Your task to perform on an android device: turn pop-ups on in chrome Image 0: 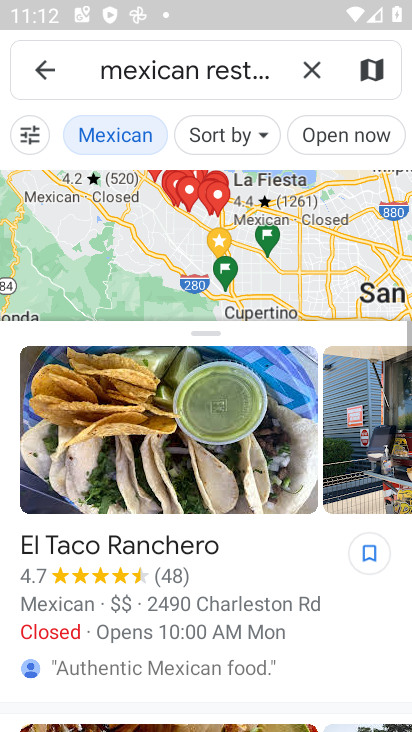
Step 0: press home button
Your task to perform on an android device: turn pop-ups on in chrome Image 1: 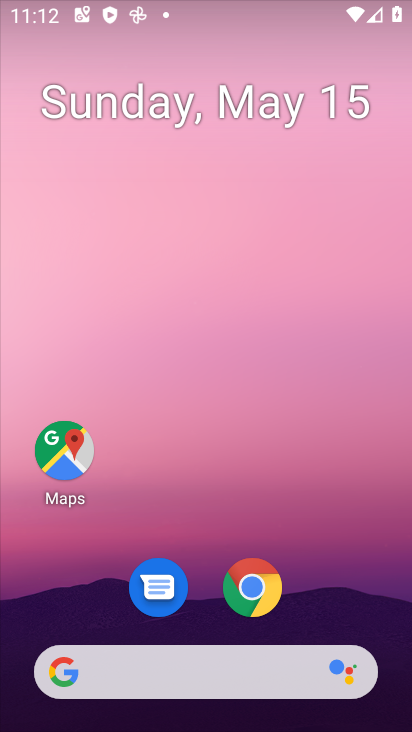
Step 1: drag from (383, 630) to (231, 111)
Your task to perform on an android device: turn pop-ups on in chrome Image 2: 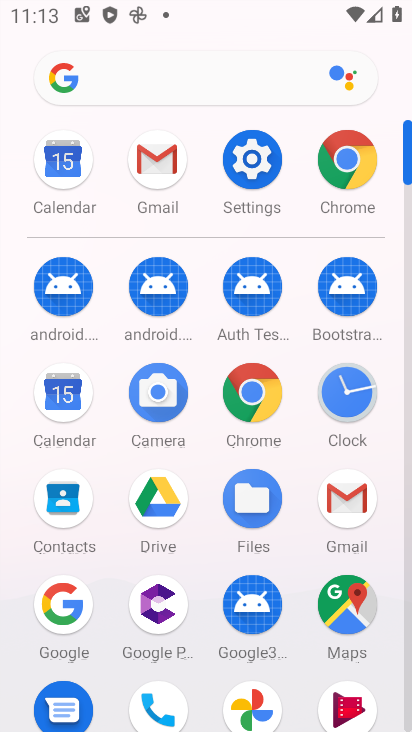
Step 2: click (259, 413)
Your task to perform on an android device: turn pop-ups on in chrome Image 3: 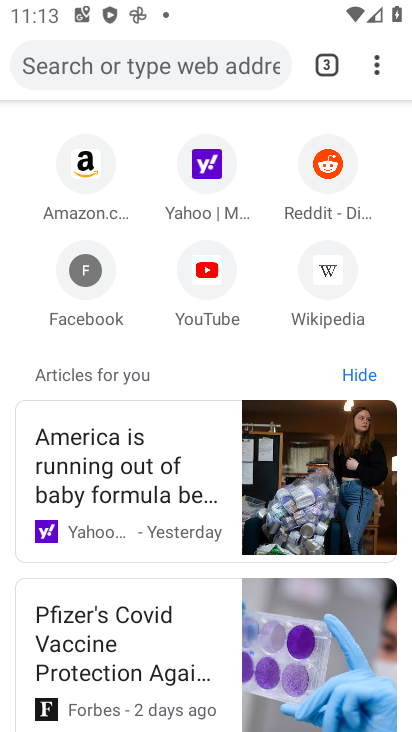
Step 3: click (373, 65)
Your task to perform on an android device: turn pop-ups on in chrome Image 4: 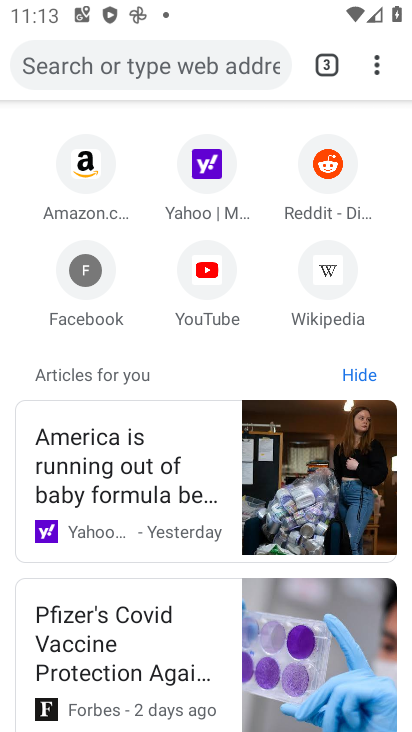
Step 4: click (373, 65)
Your task to perform on an android device: turn pop-ups on in chrome Image 5: 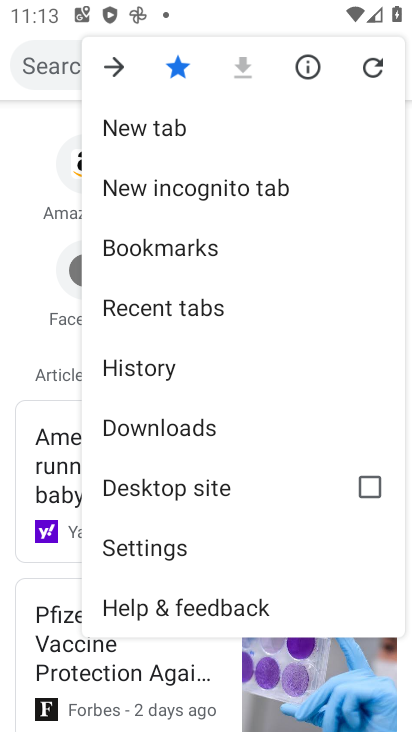
Step 5: click (189, 548)
Your task to perform on an android device: turn pop-ups on in chrome Image 6: 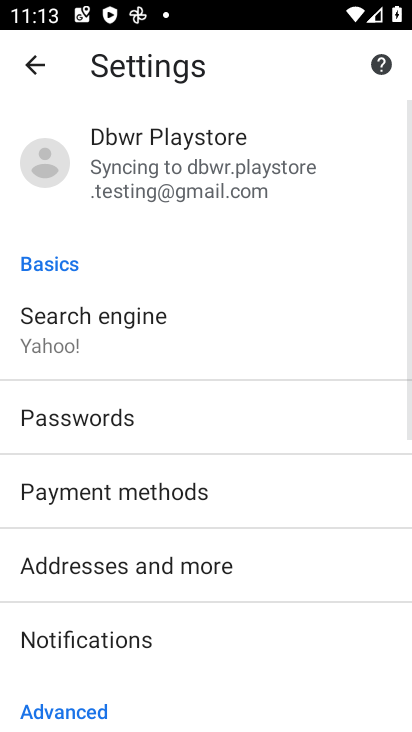
Step 6: drag from (130, 649) to (182, 329)
Your task to perform on an android device: turn pop-ups on in chrome Image 7: 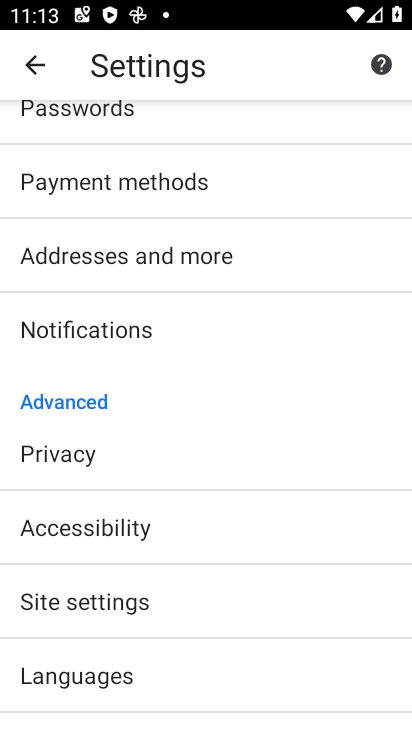
Step 7: click (127, 612)
Your task to perform on an android device: turn pop-ups on in chrome Image 8: 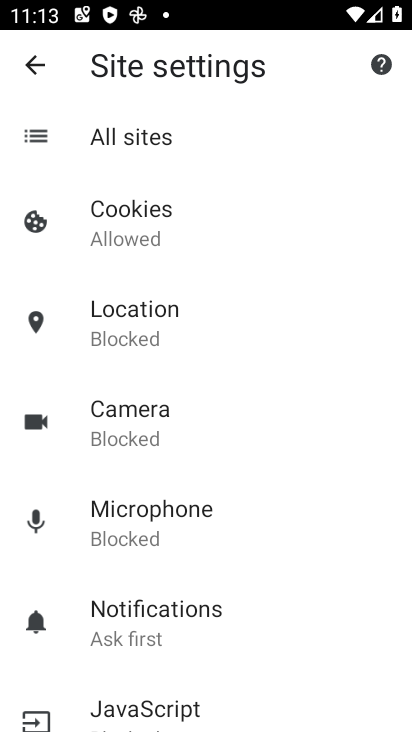
Step 8: click (164, 627)
Your task to perform on an android device: turn pop-ups on in chrome Image 9: 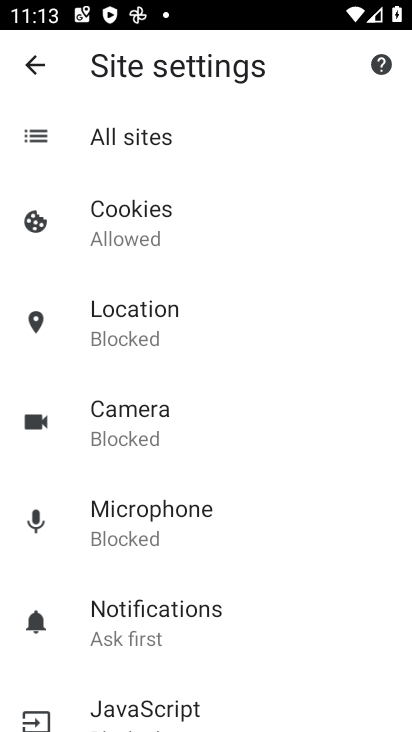
Step 9: drag from (167, 570) to (187, 417)
Your task to perform on an android device: turn pop-ups on in chrome Image 10: 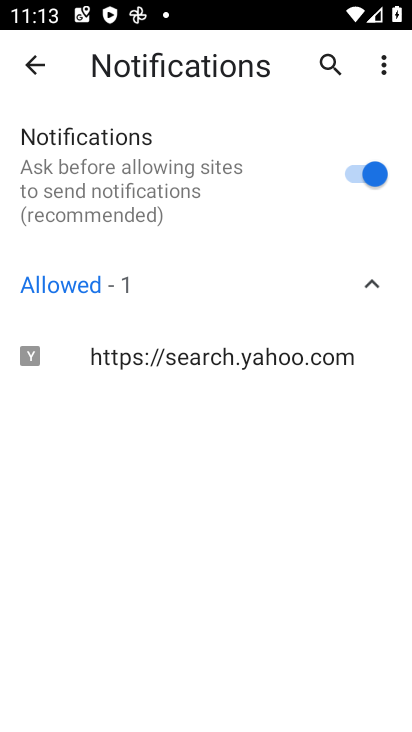
Step 10: press back button
Your task to perform on an android device: turn pop-ups on in chrome Image 11: 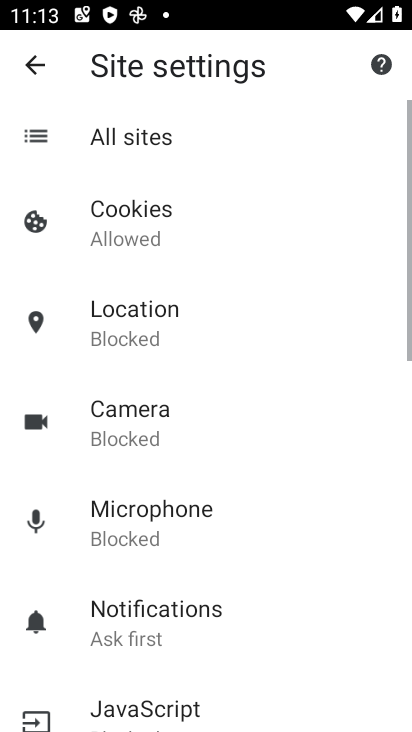
Step 11: drag from (178, 663) to (158, 351)
Your task to perform on an android device: turn pop-ups on in chrome Image 12: 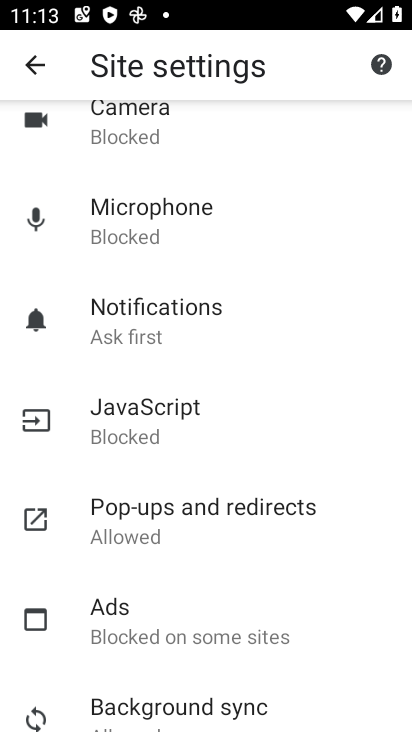
Step 12: click (210, 524)
Your task to perform on an android device: turn pop-ups on in chrome Image 13: 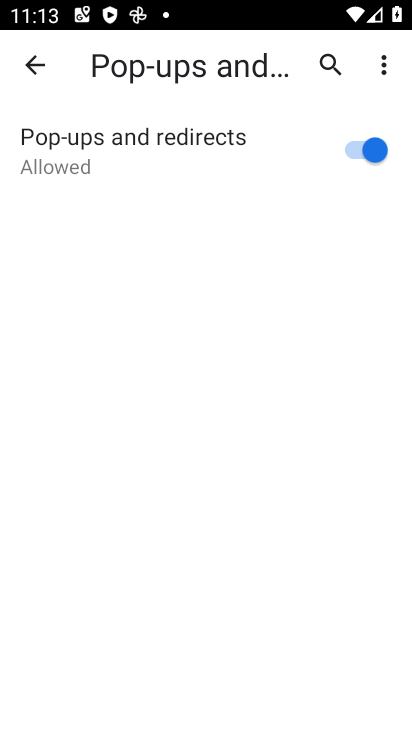
Step 13: task complete